Your task to perform on an android device: Search for a new bronzer Image 0: 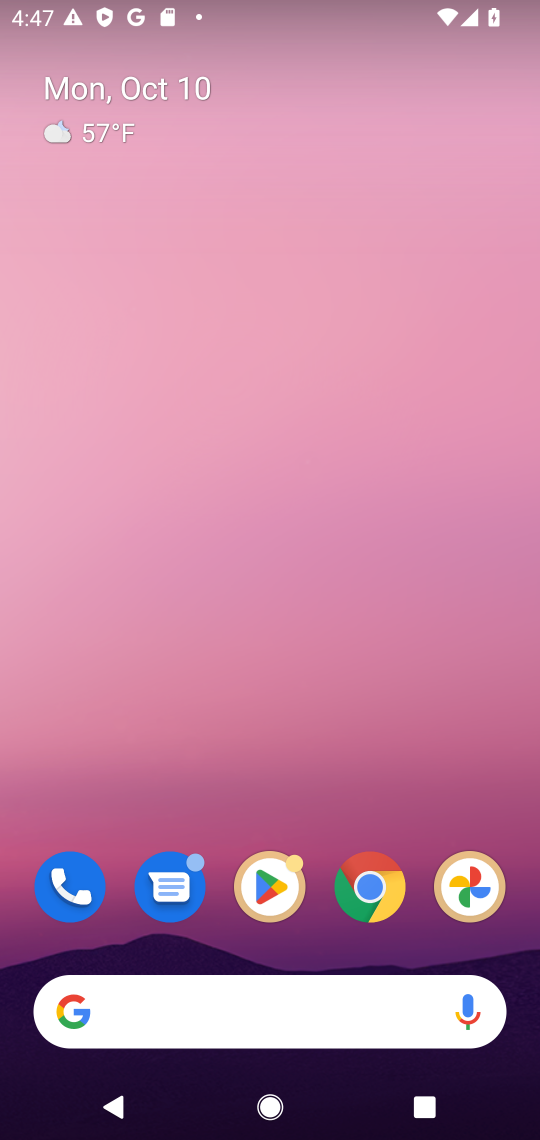
Step 0: click (375, 883)
Your task to perform on an android device: Search for a new bronzer Image 1: 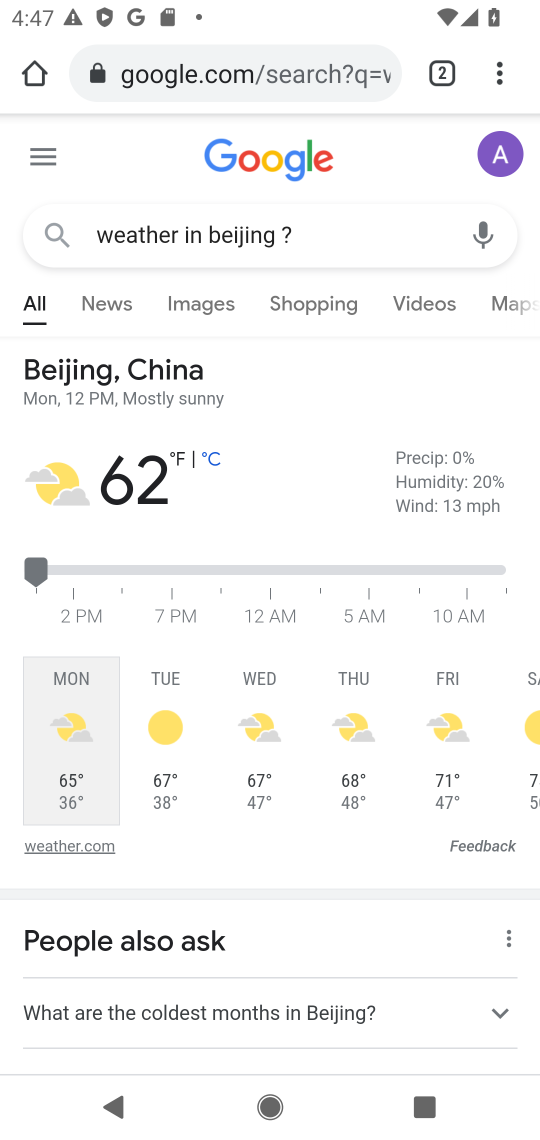
Step 1: click (209, 70)
Your task to perform on an android device: Search for a new bronzer Image 2: 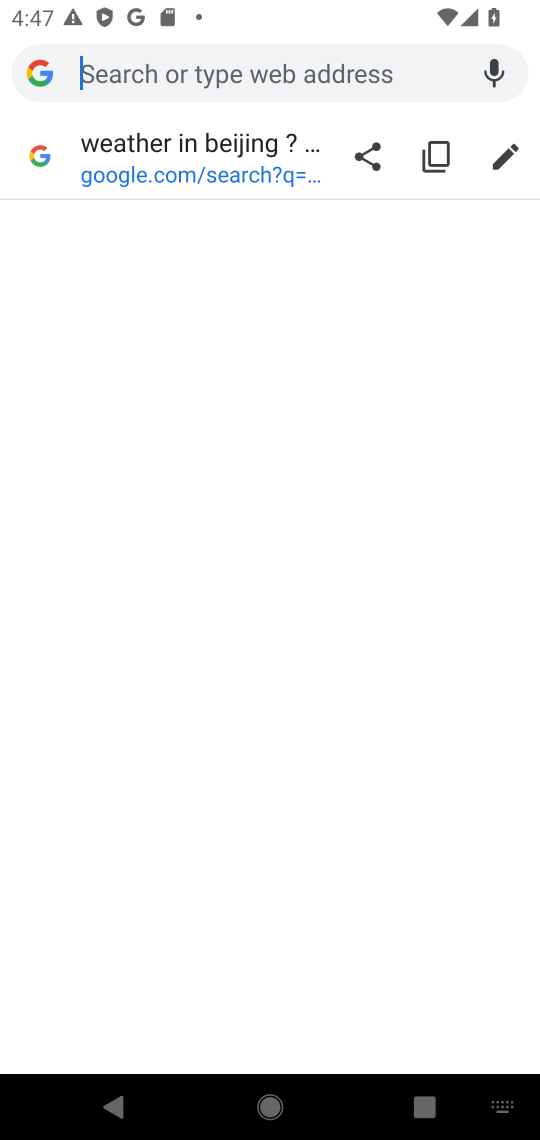
Step 2: type "new bronzer"
Your task to perform on an android device: Search for a new bronzer Image 3: 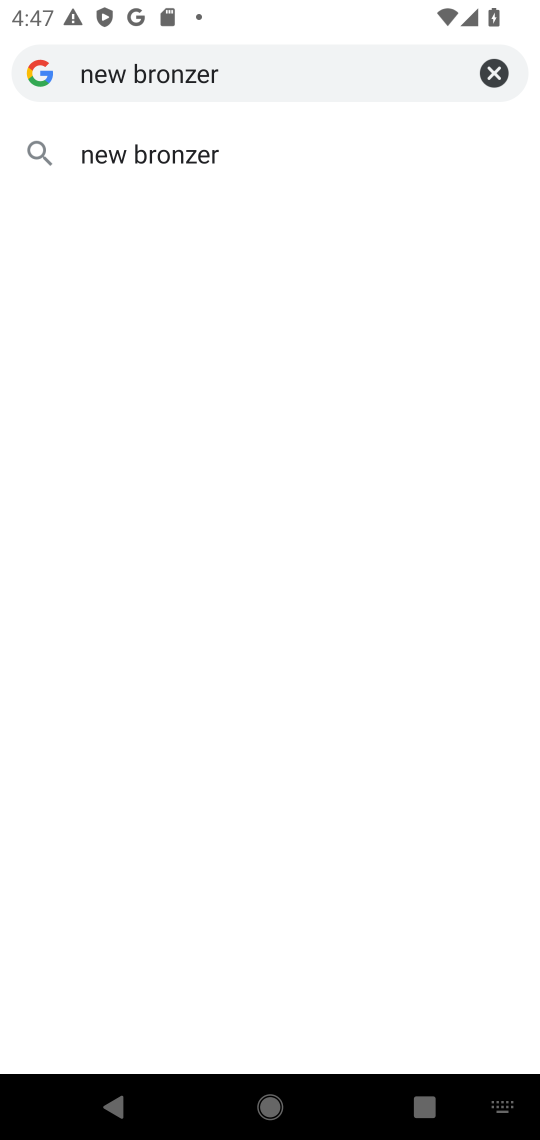
Step 3: click (239, 160)
Your task to perform on an android device: Search for a new bronzer Image 4: 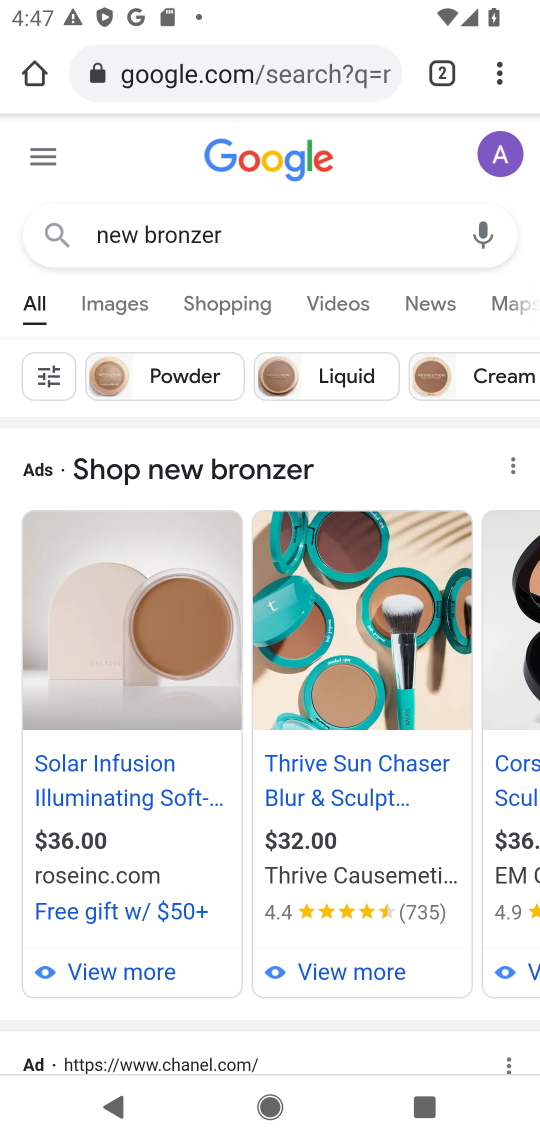
Step 4: task complete